Your task to perform on an android device: What is the recent news? Image 0: 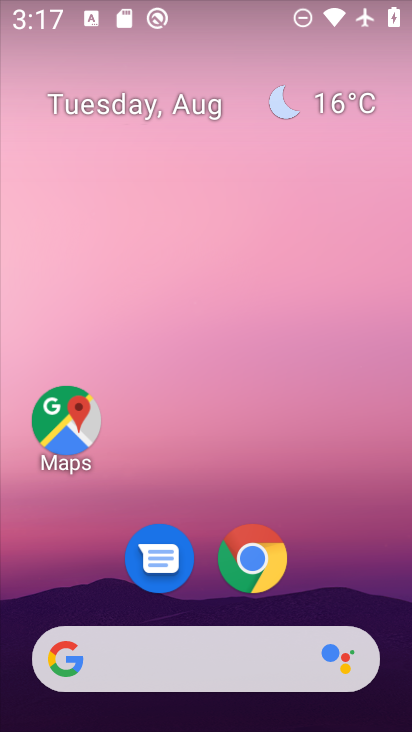
Step 0: drag from (199, 507) to (267, 0)
Your task to perform on an android device: What is the recent news? Image 1: 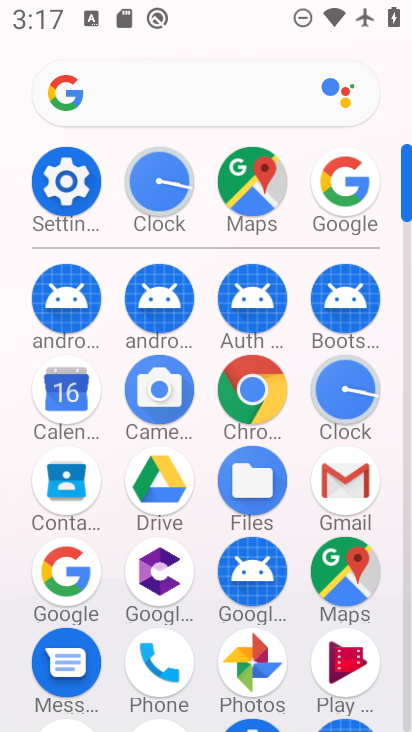
Step 1: click (77, 568)
Your task to perform on an android device: What is the recent news? Image 2: 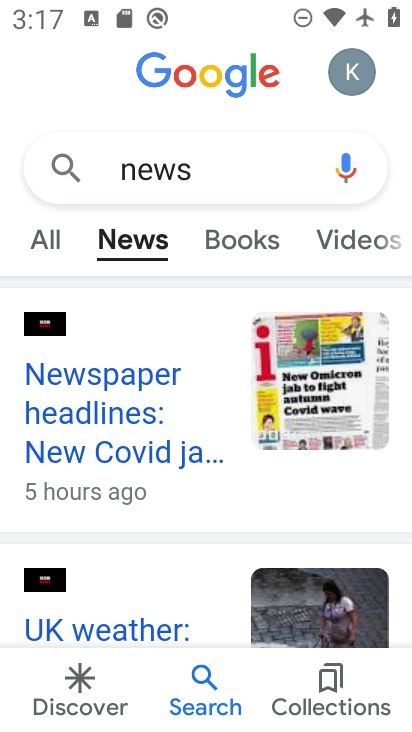
Step 2: task complete